Your task to perform on an android device: Search for flights from Buenos aires to Tokyo Image 0: 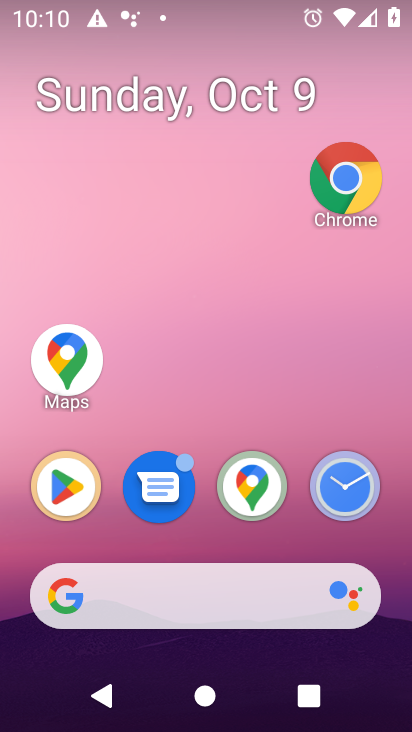
Step 0: drag from (263, 591) to (251, 379)
Your task to perform on an android device: Search for flights from Buenos aires to Tokyo Image 1: 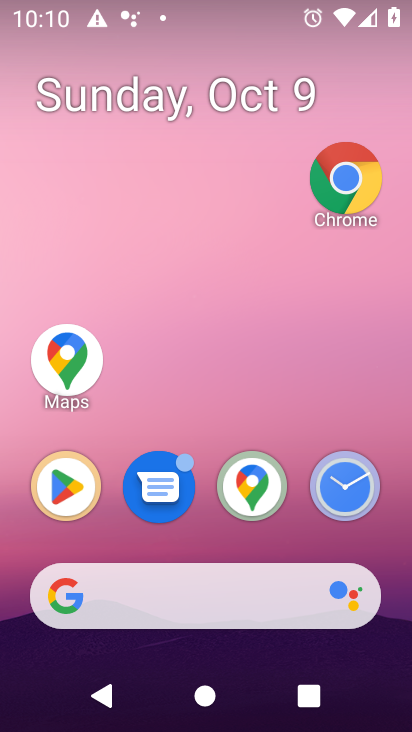
Step 1: click (259, 352)
Your task to perform on an android device: Search for flights from Buenos aires to Tokyo Image 2: 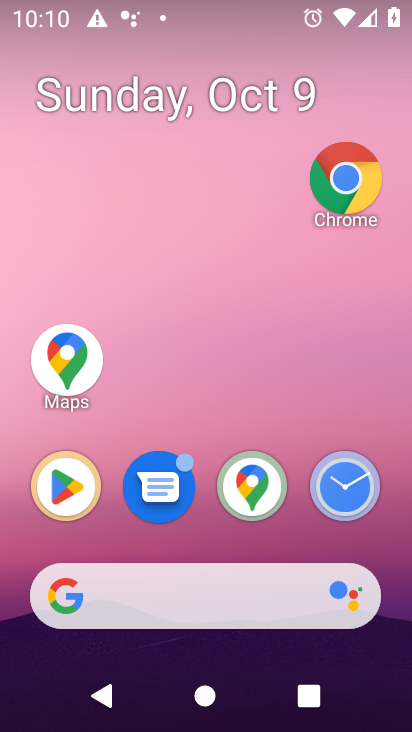
Step 2: click (259, 352)
Your task to perform on an android device: Search for flights from Buenos aires to Tokyo Image 3: 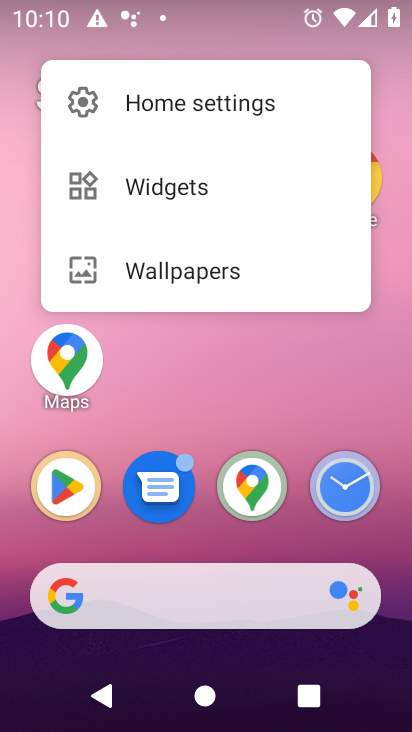
Step 3: click (248, 393)
Your task to perform on an android device: Search for flights from Buenos aires to Tokyo Image 4: 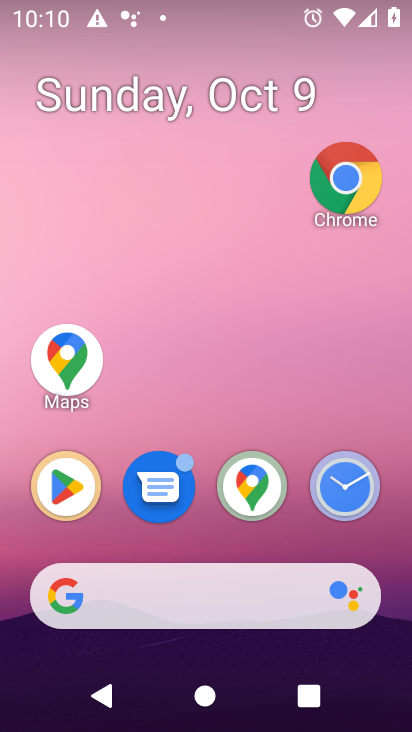
Step 4: click (253, 389)
Your task to perform on an android device: Search for flights from Buenos aires to Tokyo Image 5: 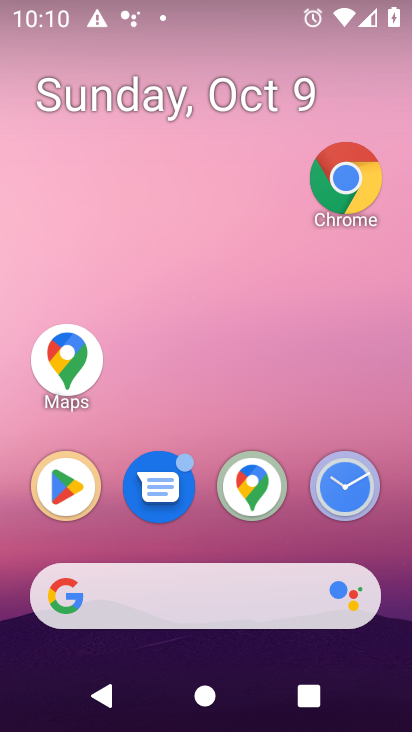
Step 5: click (253, 389)
Your task to perform on an android device: Search for flights from Buenos aires to Tokyo Image 6: 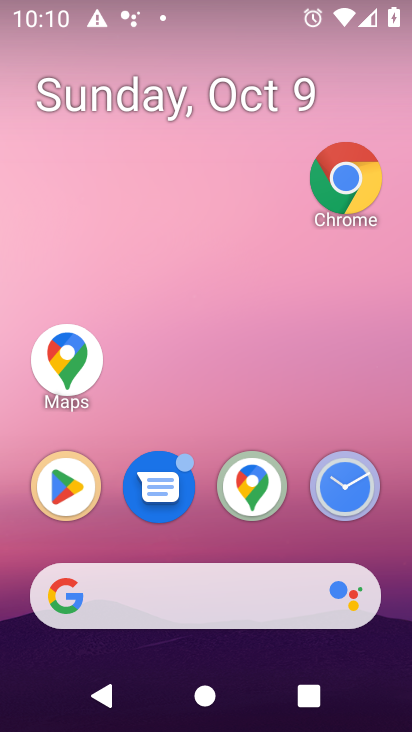
Step 6: drag from (272, 583) to (352, 0)
Your task to perform on an android device: Search for flights from Buenos aires to Tokyo Image 7: 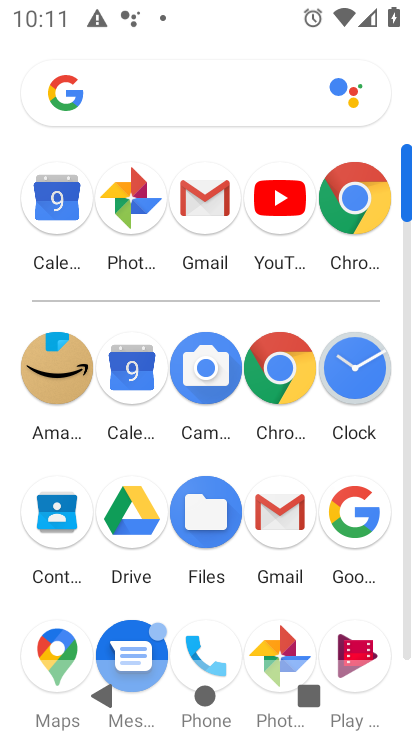
Step 7: click (352, 532)
Your task to perform on an android device: Search for flights from Buenos aires to Tokyo Image 8: 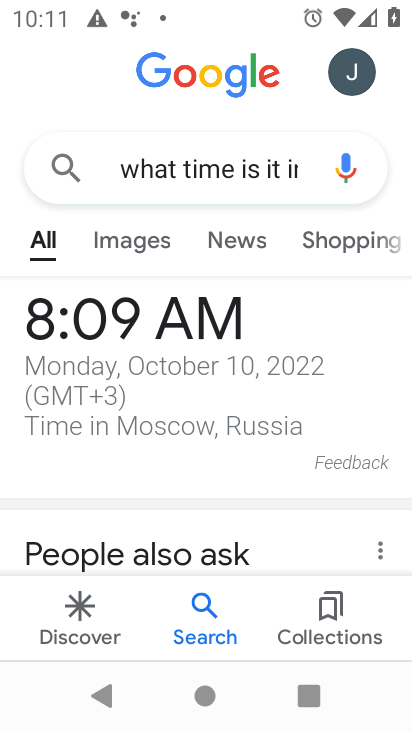
Step 8: click (293, 173)
Your task to perform on an android device: Search for flights from Buenos aires to Tokyo Image 9: 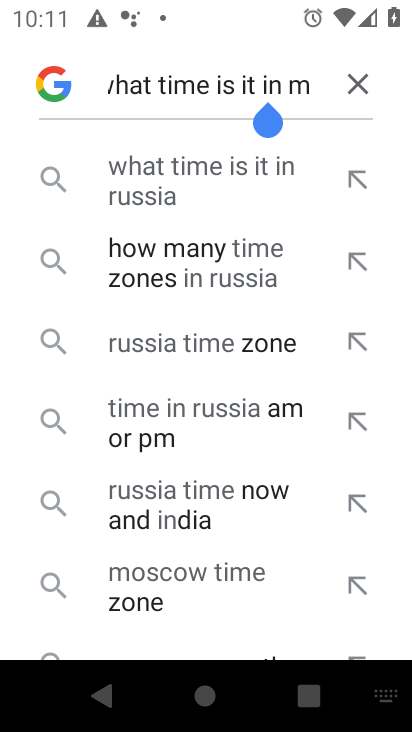
Step 9: click (361, 90)
Your task to perform on an android device: Search for flights from Buenos aires to Tokyo Image 10: 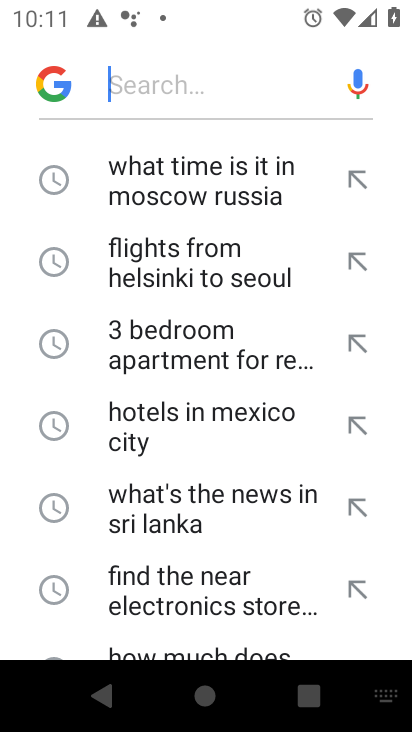
Step 10: type "flights from Buenos aires to Tokyo"
Your task to perform on an android device: Search for flights from Buenos aires to Tokyo Image 11: 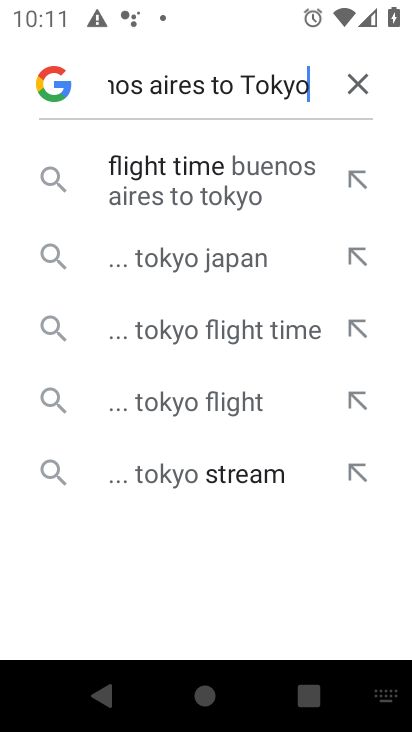
Step 11: click (250, 167)
Your task to perform on an android device: Search for flights from Buenos aires to Tokyo Image 12: 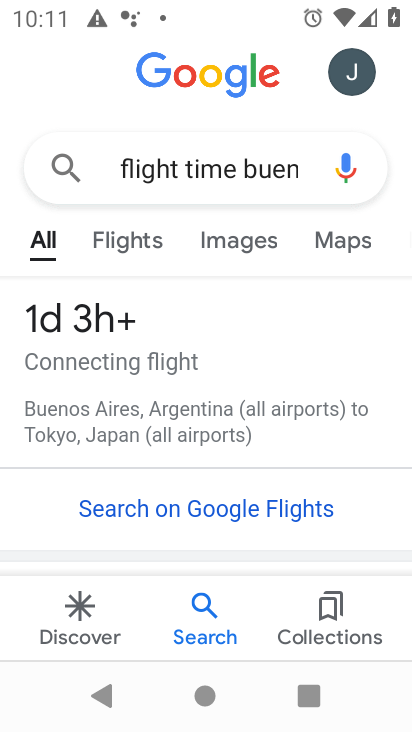
Step 12: task complete